Your task to perform on an android device: turn off smart reply in the gmail app Image 0: 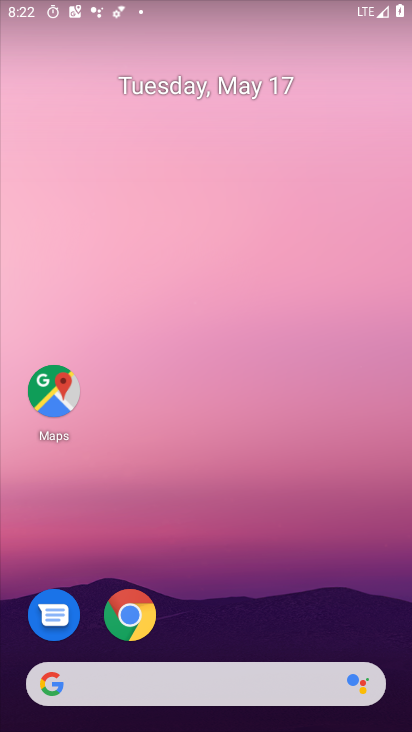
Step 0: drag from (203, 634) to (168, 212)
Your task to perform on an android device: turn off smart reply in the gmail app Image 1: 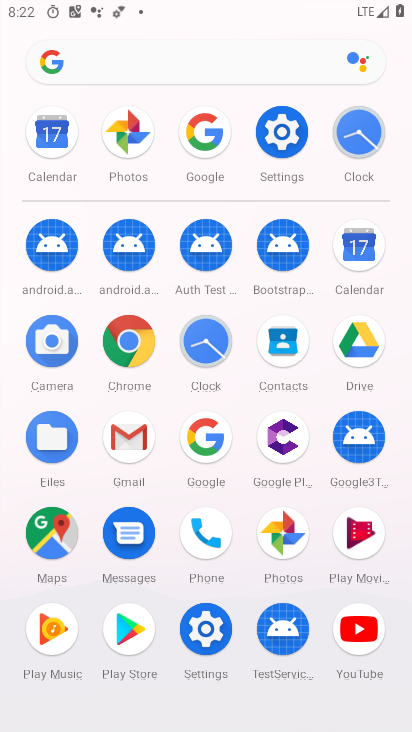
Step 1: click (113, 445)
Your task to perform on an android device: turn off smart reply in the gmail app Image 2: 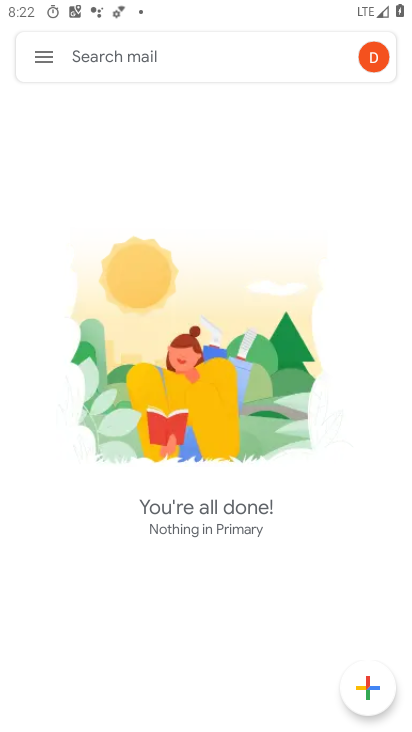
Step 2: click (32, 57)
Your task to perform on an android device: turn off smart reply in the gmail app Image 3: 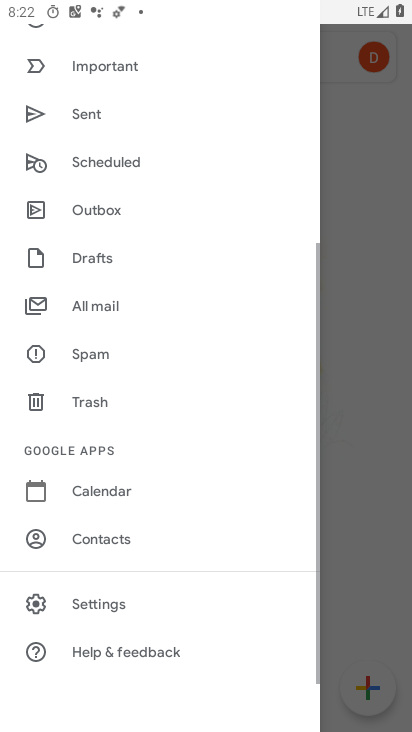
Step 3: click (100, 602)
Your task to perform on an android device: turn off smart reply in the gmail app Image 4: 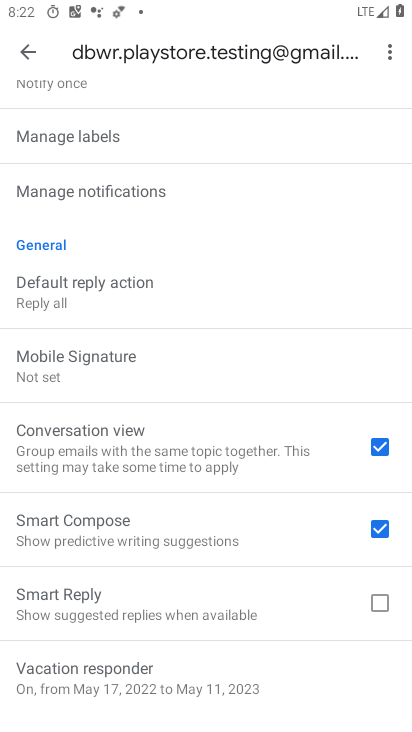
Step 4: task complete